Your task to perform on an android device: Open Android settings Image 0: 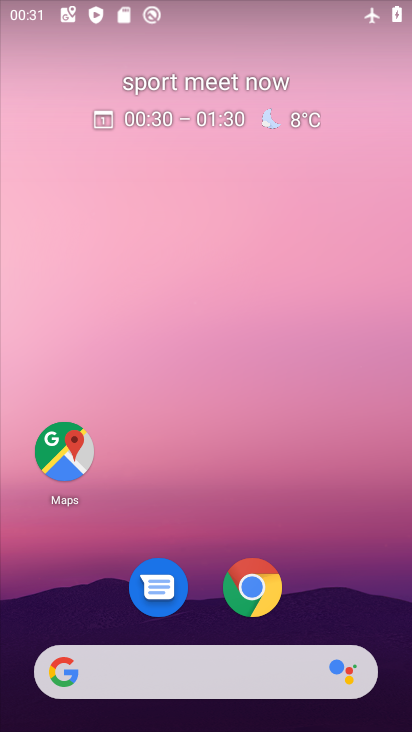
Step 0: drag from (398, 680) to (398, 255)
Your task to perform on an android device: Open Android settings Image 1: 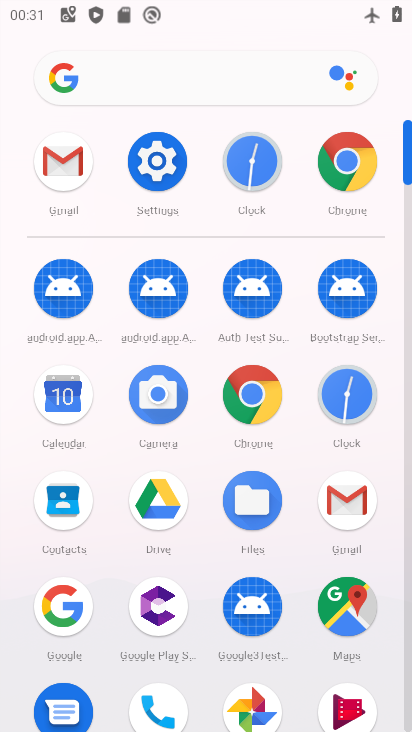
Step 1: click (161, 172)
Your task to perform on an android device: Open Android settings Image 2: 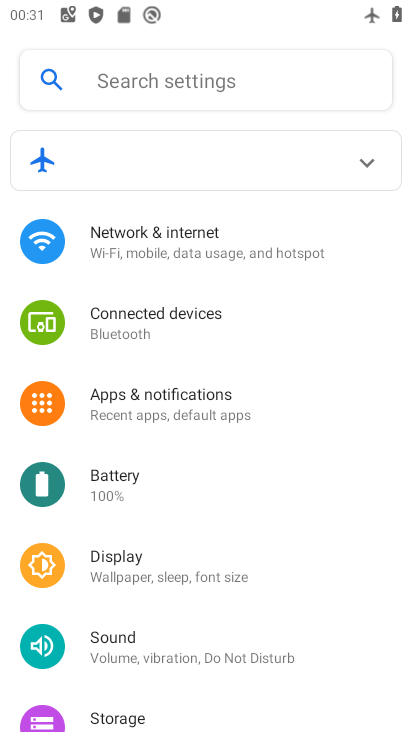
Step 2: task complete